Your task to perform on an android device: find snoozed emails in the gmail app Image 0: 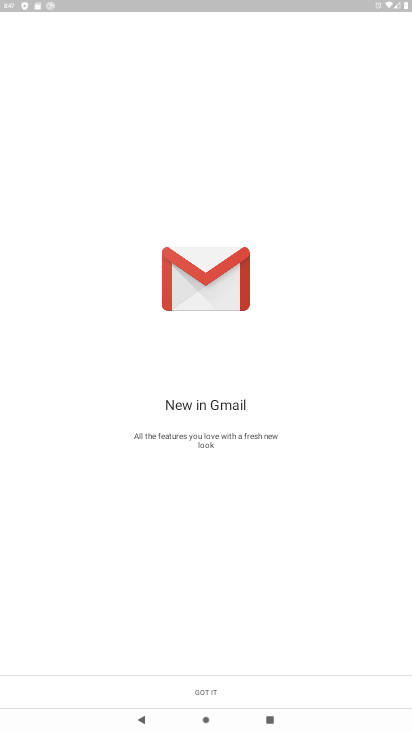
Step 0: press home button
Your task to perform on an android device: find snoozed emails in the gmail app Image 1: 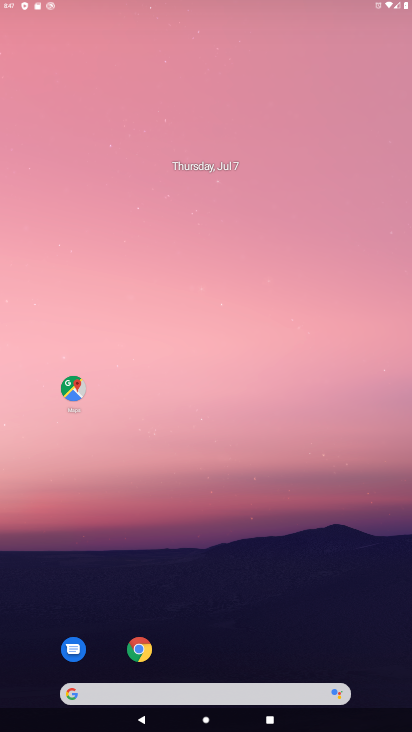
Step 1: drag from (209, 661) to (237, 114)
Your task to perform on an android device: find snoozed emails in the gmail app Image 2: 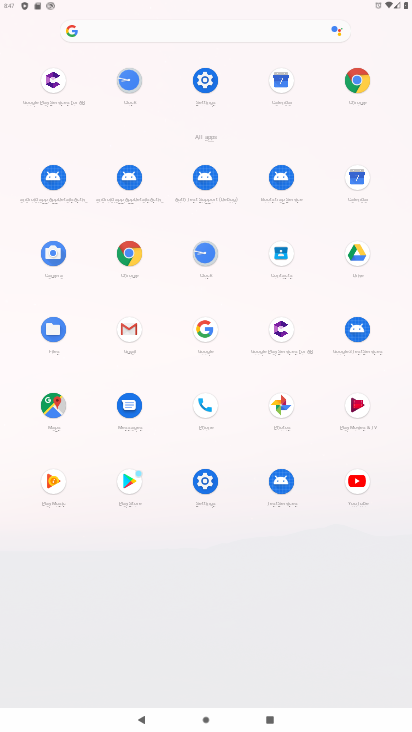
Step 2: click (131, 321)
Your task to perform on an android device: find snoozed emails in the gmail app Image 3: 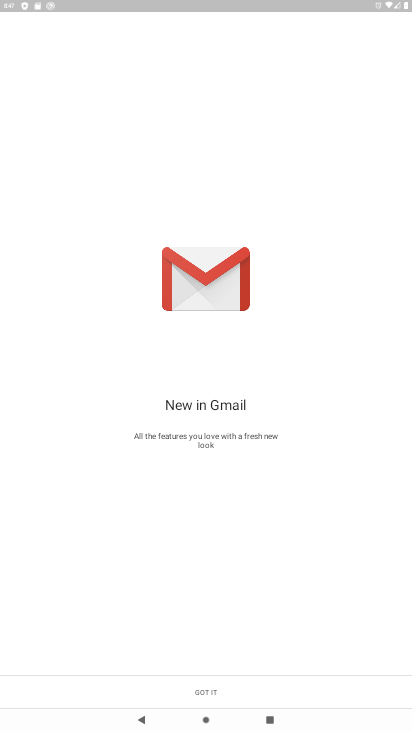
Step 3: click (244, 683)
Your task to perform on an android device: find snoozed emails in the gmail app Image 4: 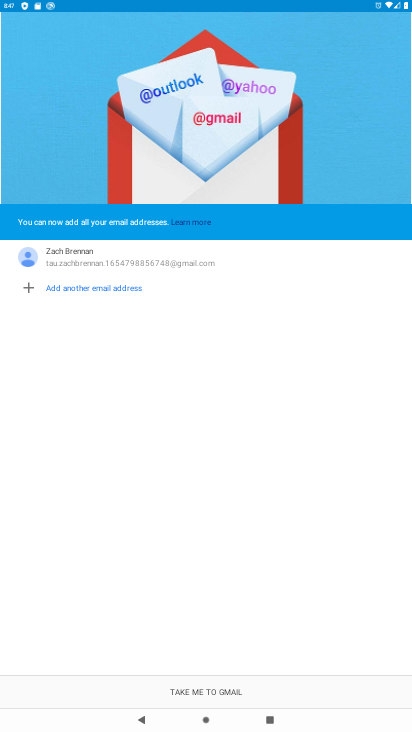
Step 4: click (244, 683)
Your task to perform on an android device: find snoozed emails in the gmail app Image 5: 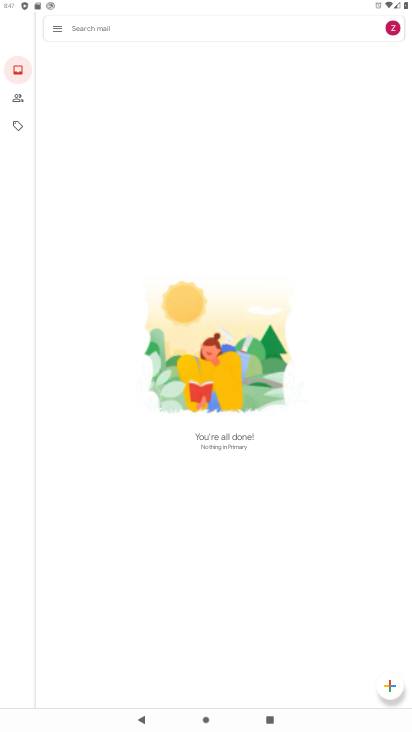
Step 5: drag from (14, 170) to (172, 174)
Your task to perform on an android device: find snoozed emails in the gmail app Image 6: 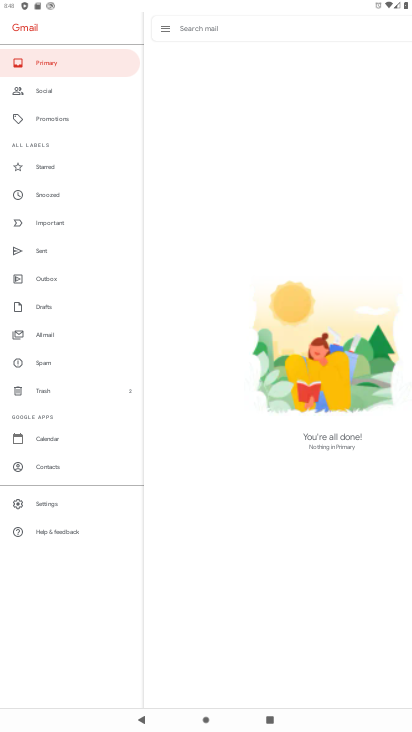
Step 6: click (53, 195)
Your task to perform on an android device: find snoozed emails in the gmail app Image 7: 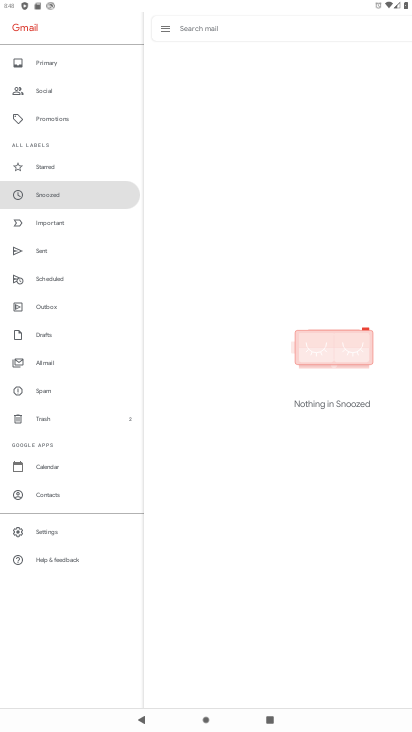
Step 7: task complete